Your task to perform on an android device: open app "Adobe Express: Graphic Design" (install if not already installed) Image 0: 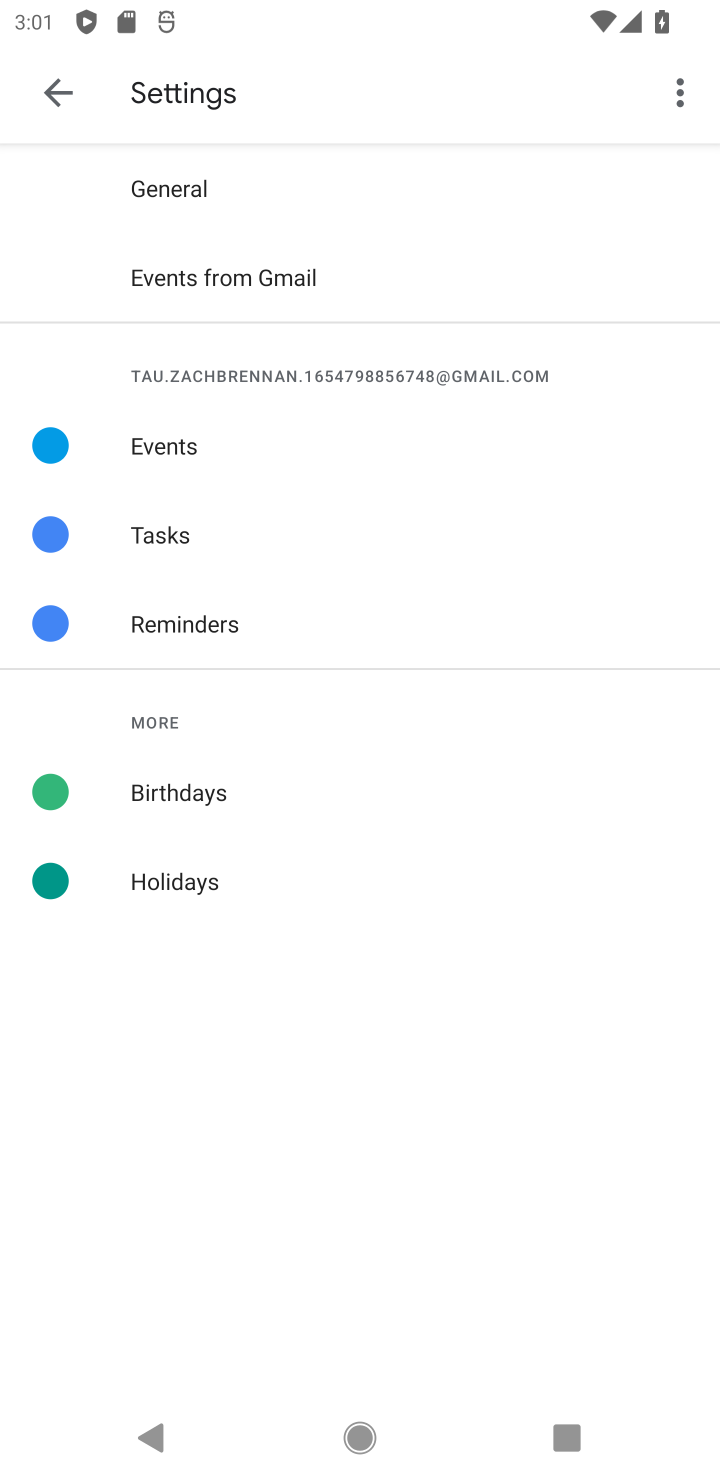
Step 0: press home button
Your task to perform on an android device: open app "Adobe Express: Graphic Design" (install if not already installed) Image 1: 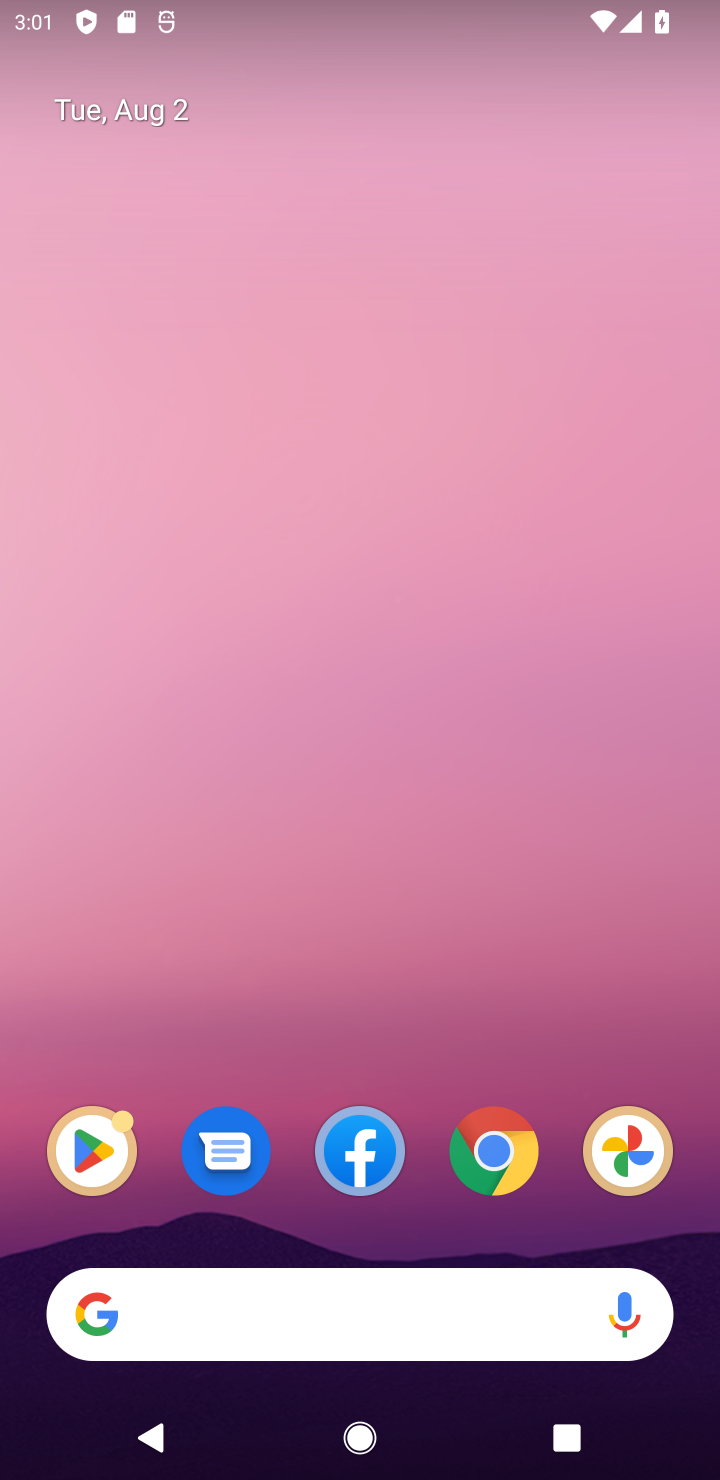
Step 1: drag from (427, 1467) to (418, 669)
Your task to perform on an android device: open app "Adobe Express: Graphic Design" (install if not already installed) Image 2: 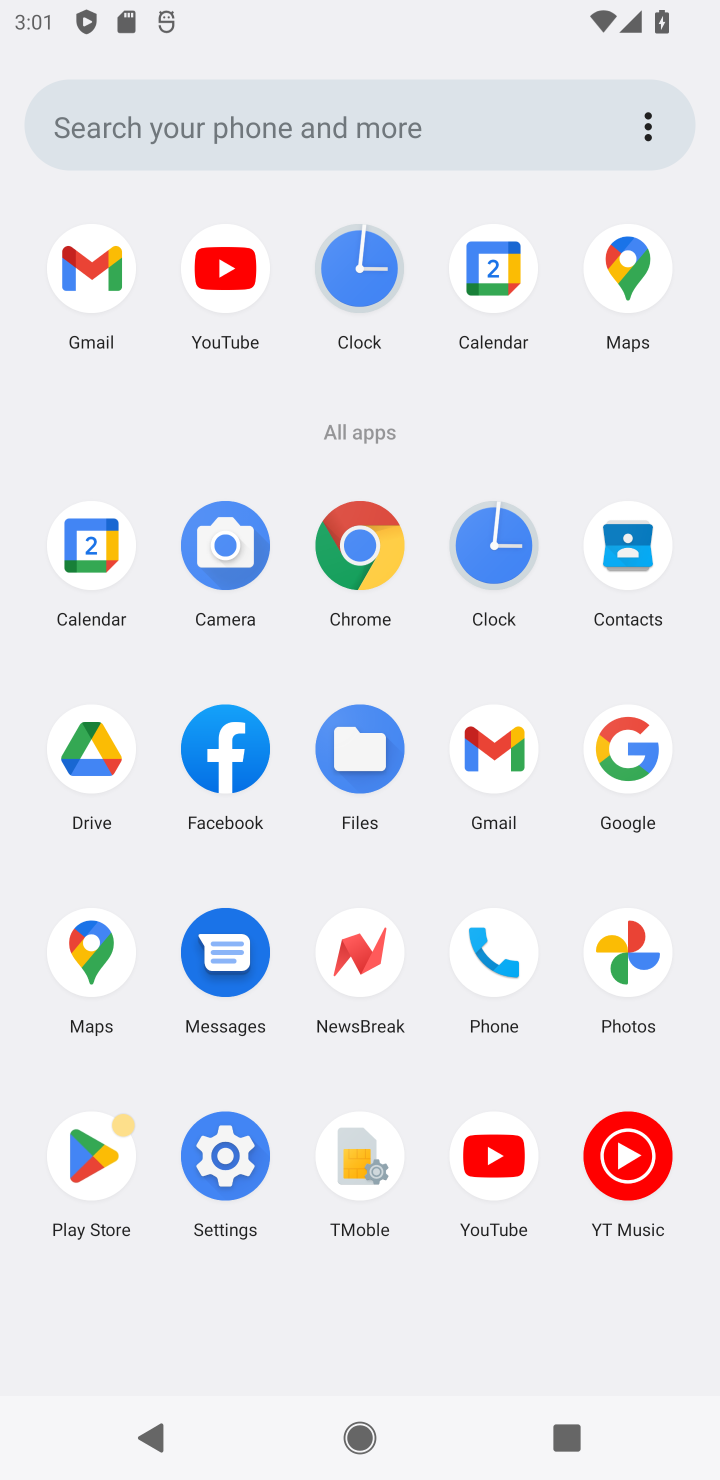
Step 2: click (101, 1157)
Your task to perform on an android device: open app "Adobe Express: Graphic Design" (install if not already installed) Image 3: 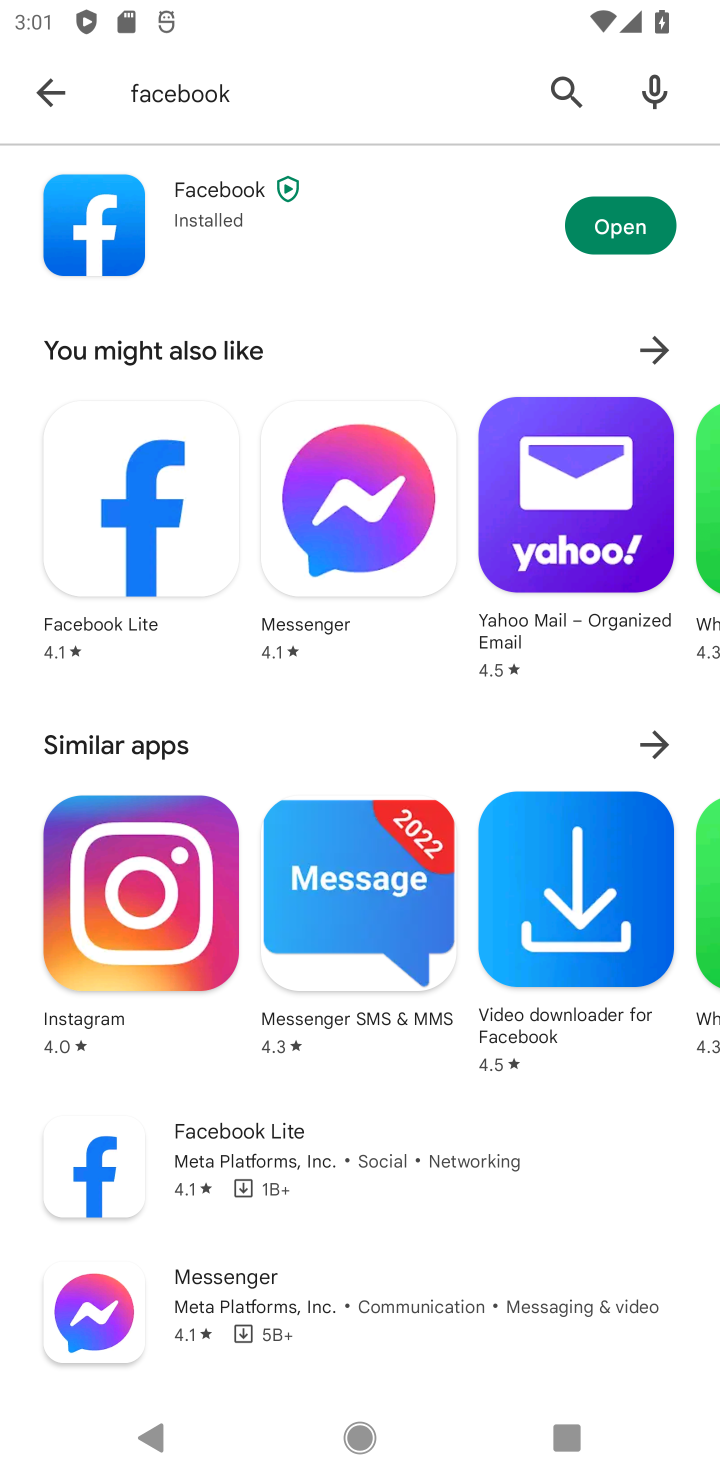
Step 3: click (555, 75)
Your task to perform on an android device: open app "Adobe Express: Graphic Design" (install if not already installed) Image 4: 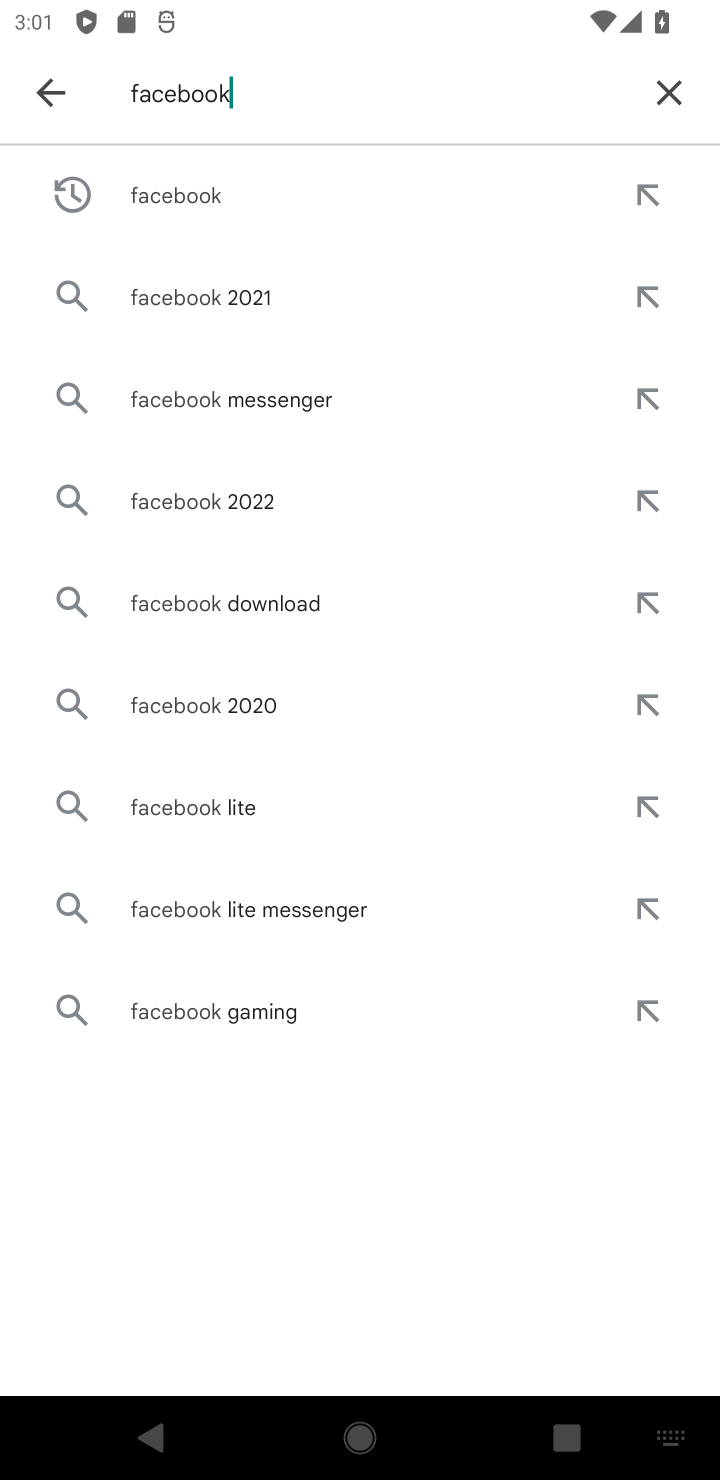
Step 4: click (660, 87)
Your task to perform on an android device: open app "Adobe Express: Graphic Design" (install if not already installed) Image 5: 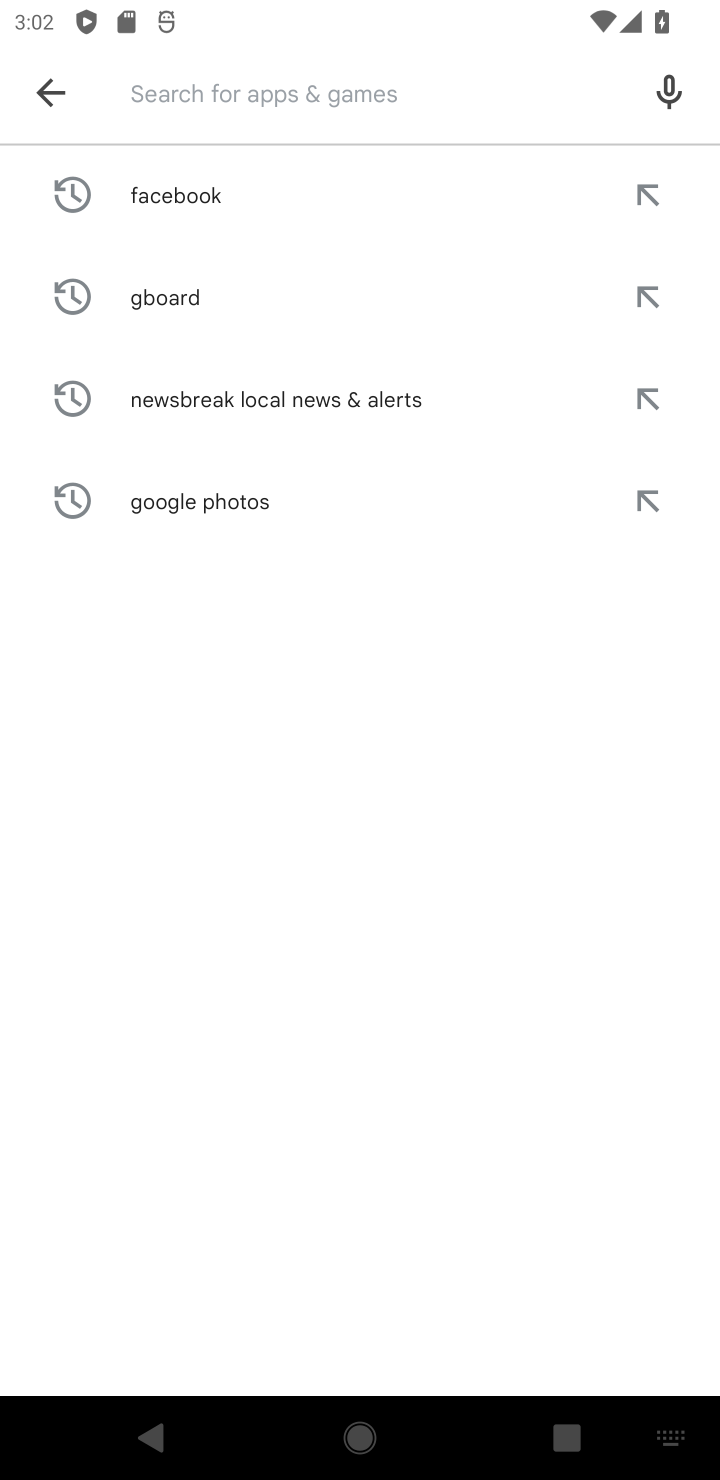
Step 5: type "Adobe Express: Graphic Design"
Your task to perform on an android device: open app "Adobe Express: Graphic Design" (install if not already installed) Image 6: 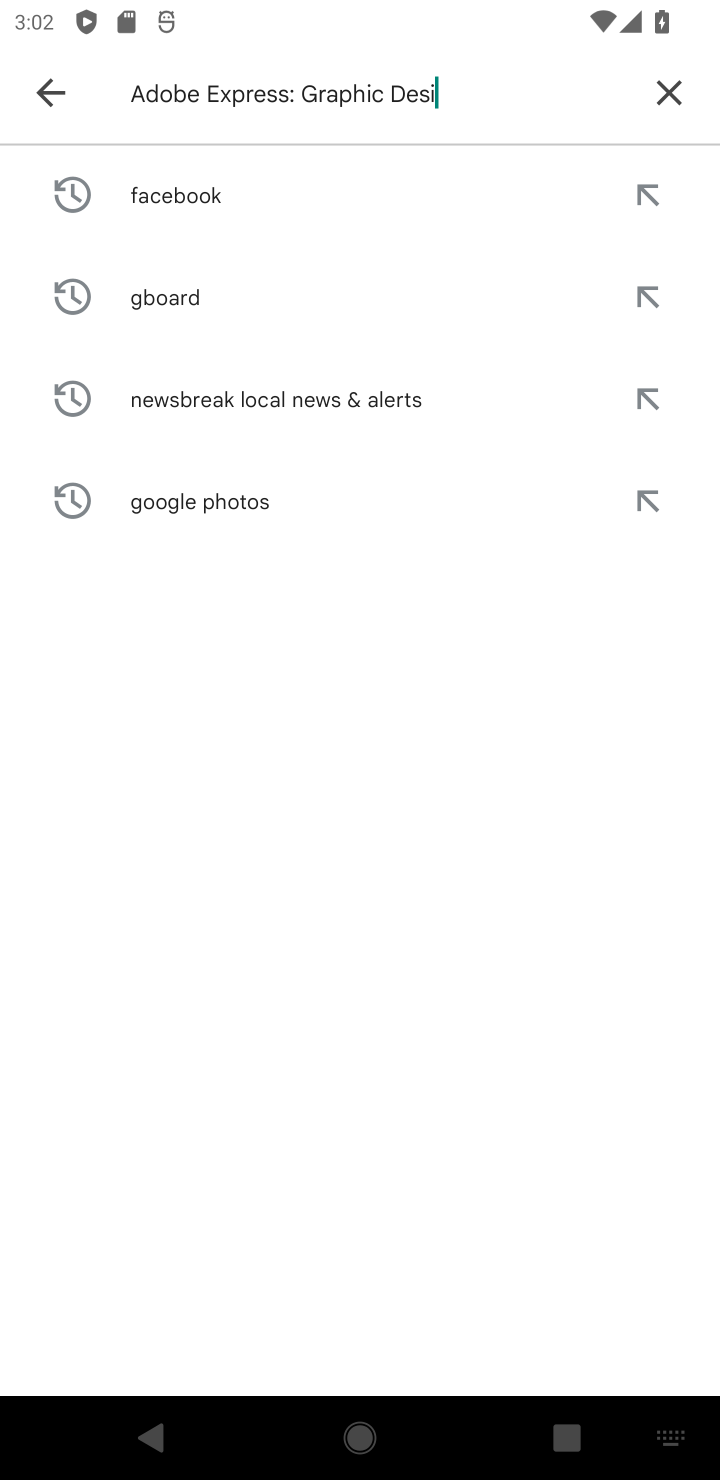
Step 6: type ""
Your task to perform on an android device: open app "Adobe Express: Graphic Design" (install if not already installed) Image 7: 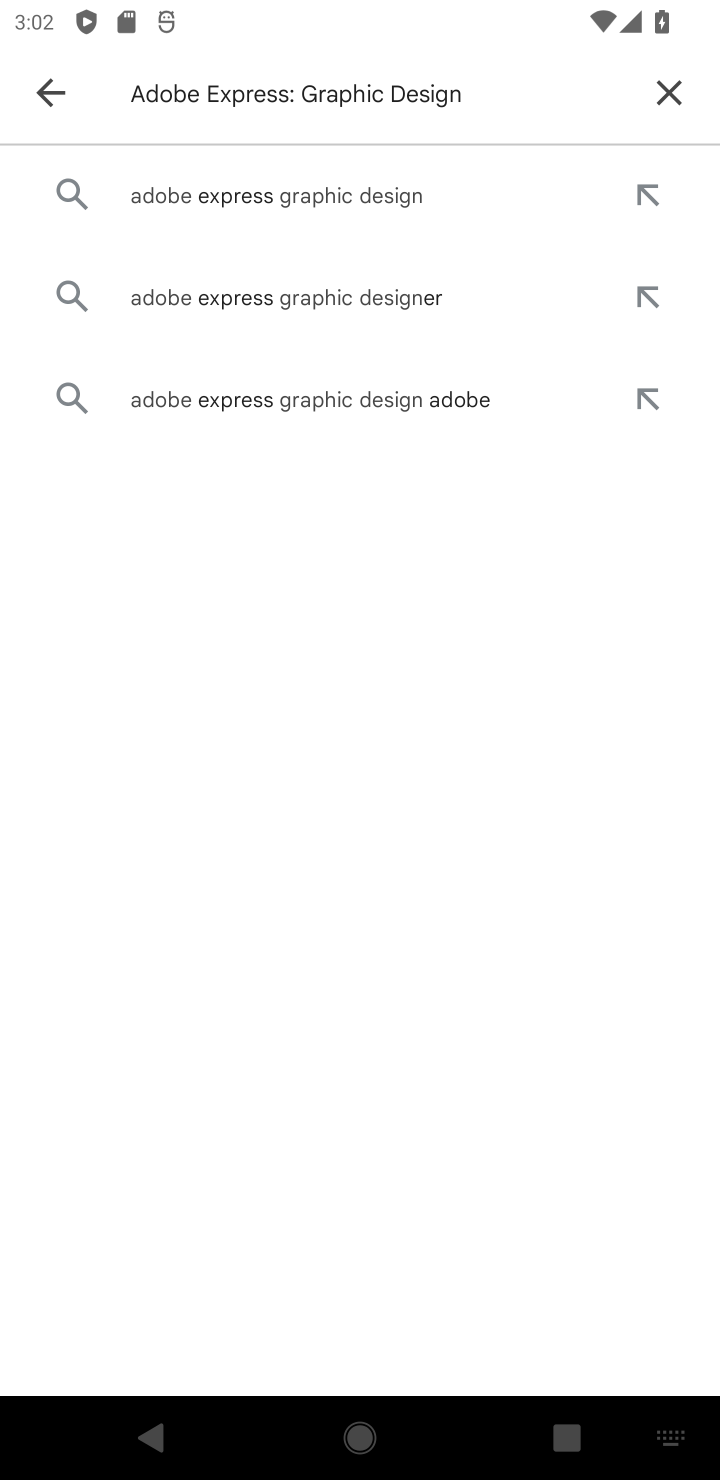
Step 7: click (328, 194)
Your task to perform on an android device: open app "Adobe Express: Graphic Design" (install if not already installed) Image 8: 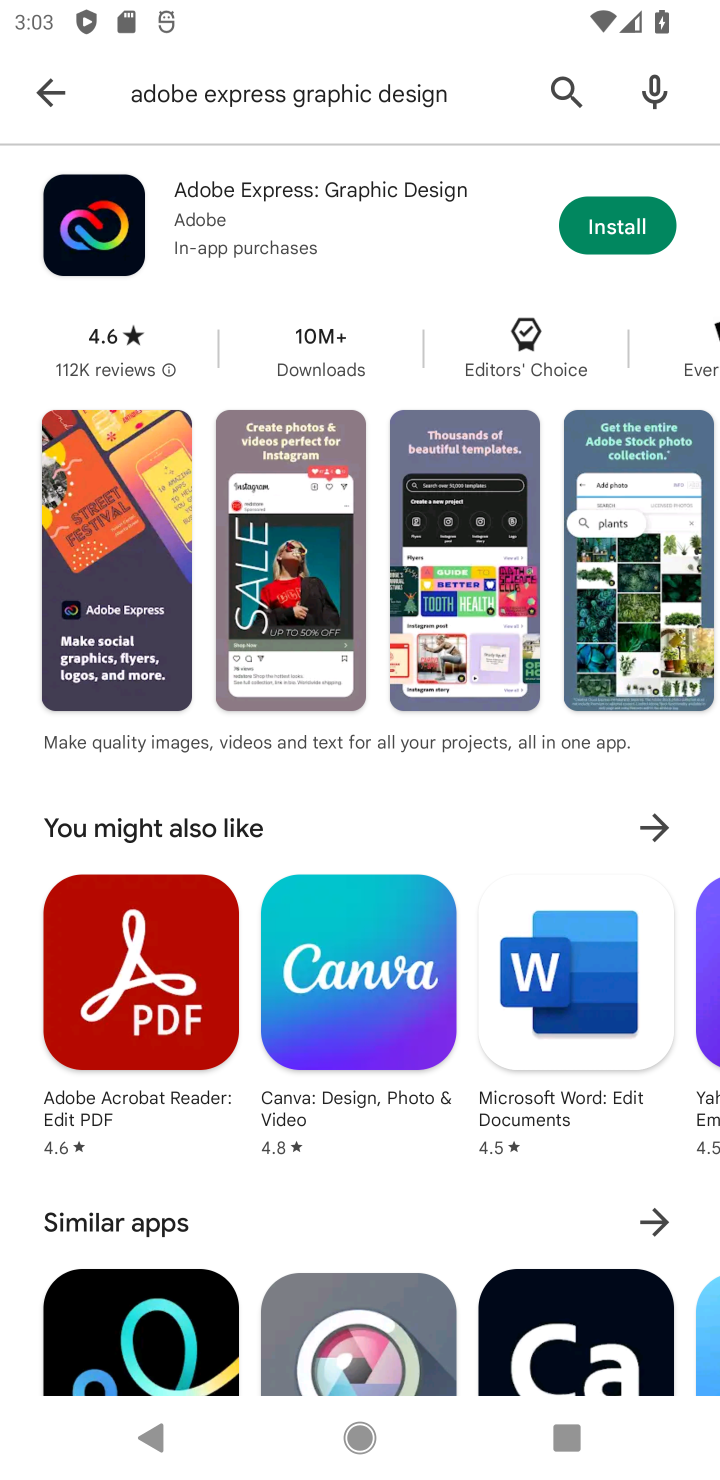
Step 8: click (637, 218)
Your task to perform on an android device: open app "Adobe Express: Graphic Design" (install if not already installed) Image 9: 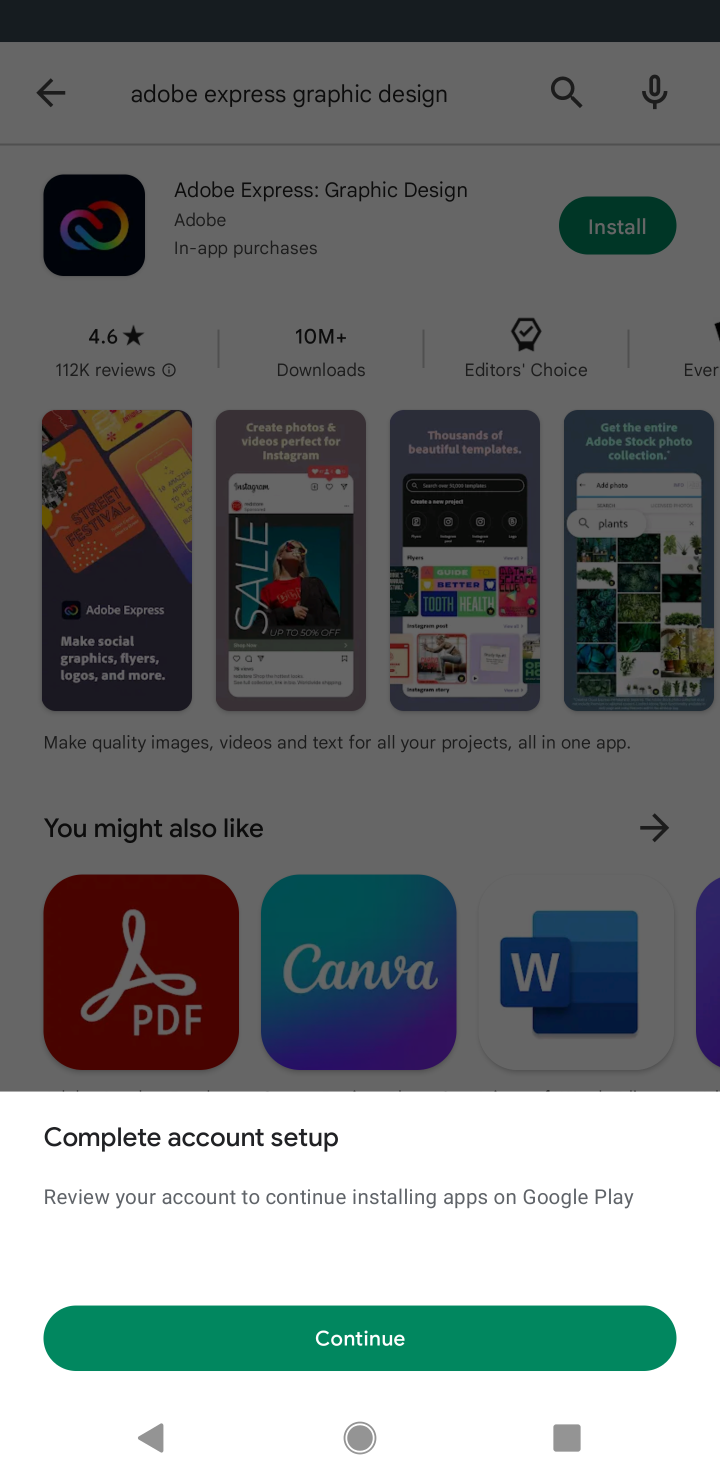
Step 9: click (352, 1330)
Your task to perform on an android device: open app "Adobe Express: Graphic Design" (install if not already installed) Image 10: 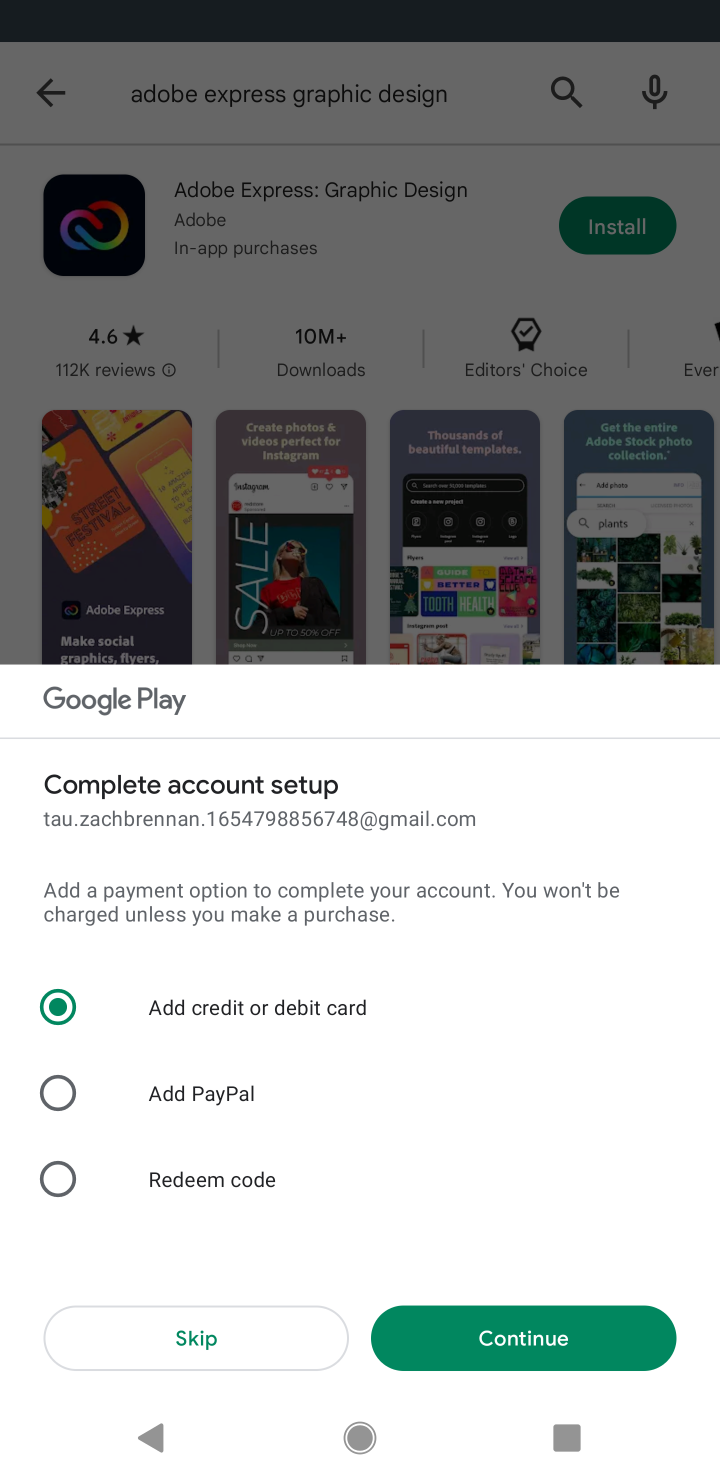
Step 10: click (229, 1343)
Your task to perform on an android device: open app "Adobe Express: Graphic Design" (install if not already installed) Image 11: 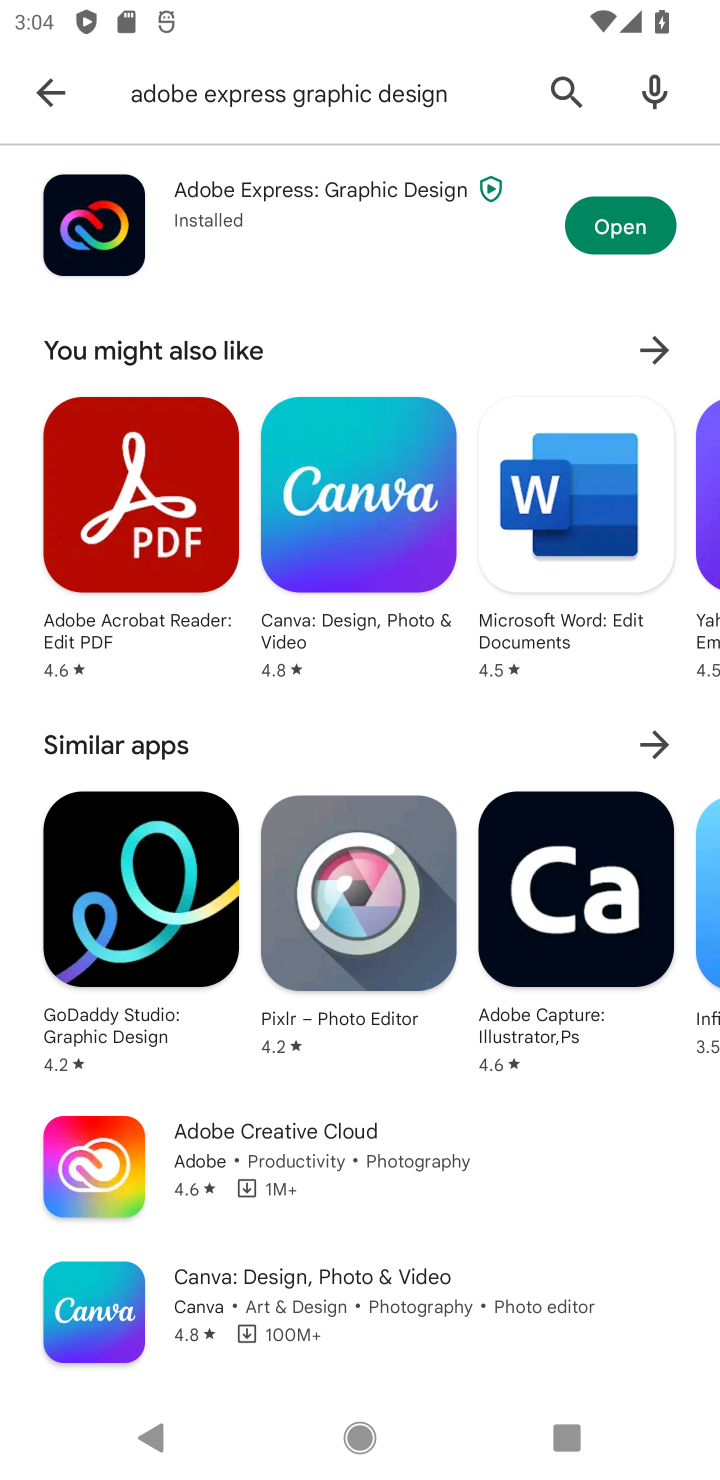
Step 11: click (625, 233)
Your task to perform on an android device: open app "Adobe Express: Graphic Design" (install if not already installed) Image 12: 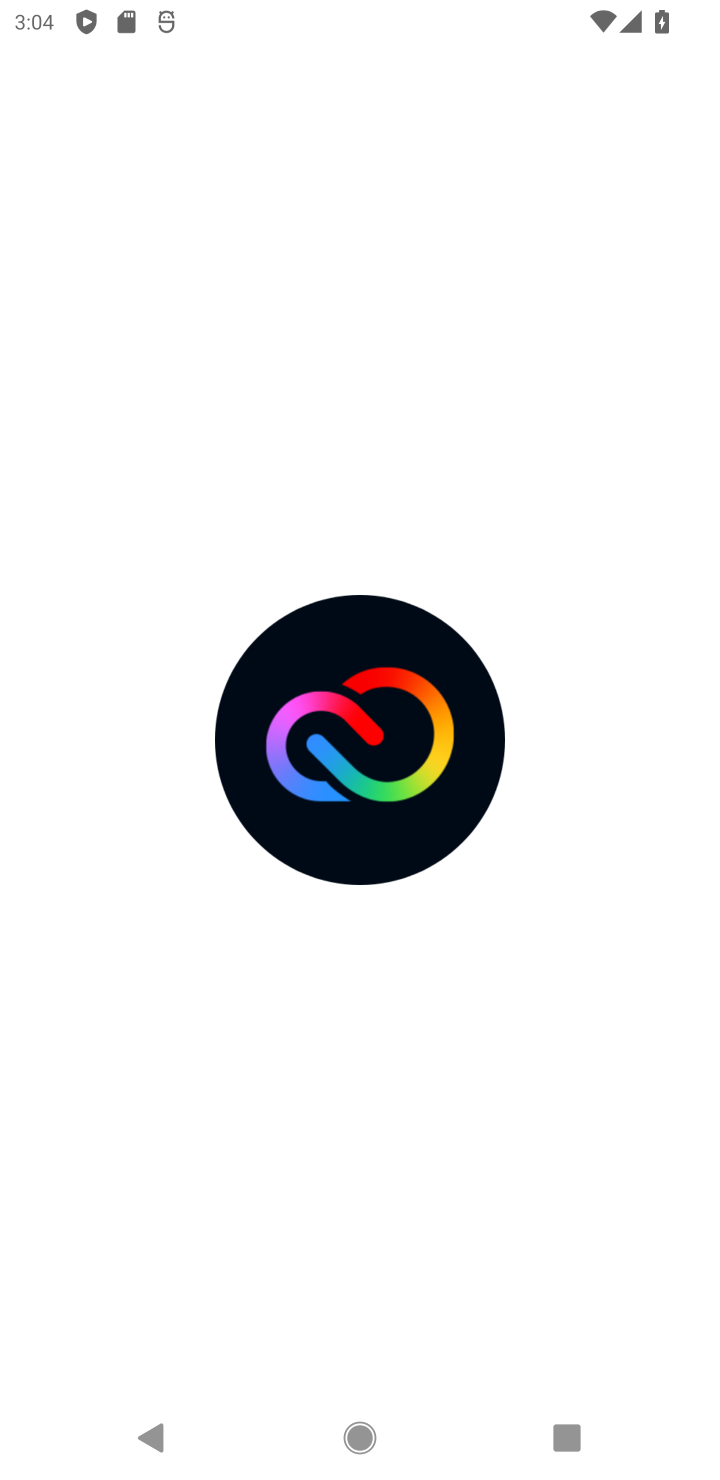
Step 12: task complete